Your task to perform on an android device: Open sound settings Image 0: 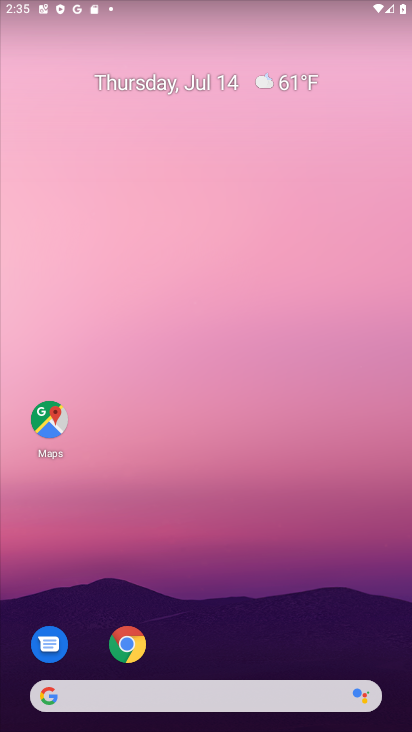
Step 0: drag from (314, 567) to (351, 189)
Your task to perform on an android device: Open sound settings Image 1: 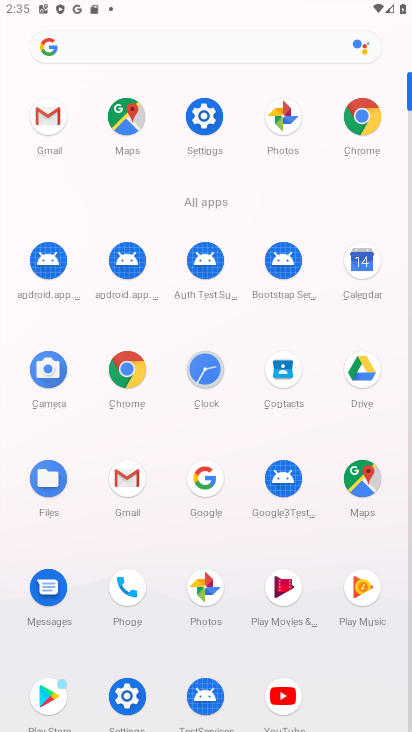
Step 1: click (205, 118)
Your task to perform on an android device: Open sound settings Image 2: 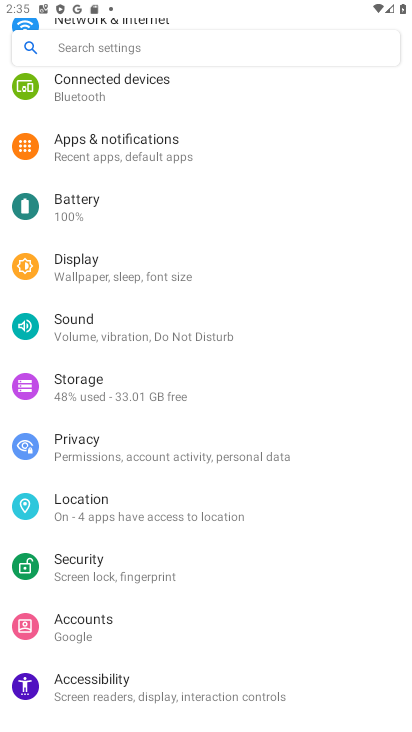
Step 2: click (106, 334)
Your task to perform on an android device: Open sound settings Image 3: 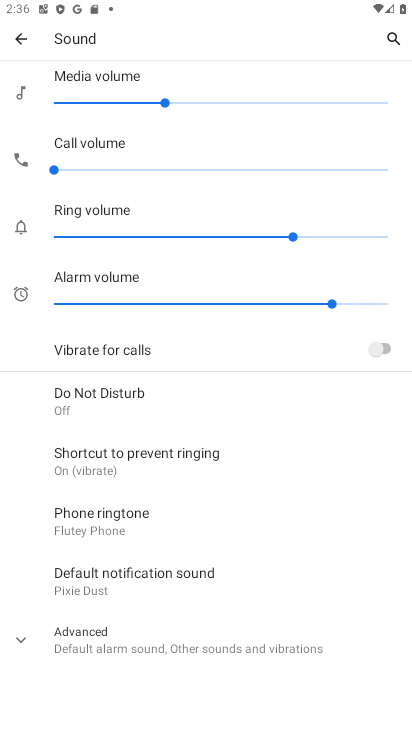
Step 3: task complete